Your task to perform on an android device: Go to Yahoo.com Image 0: 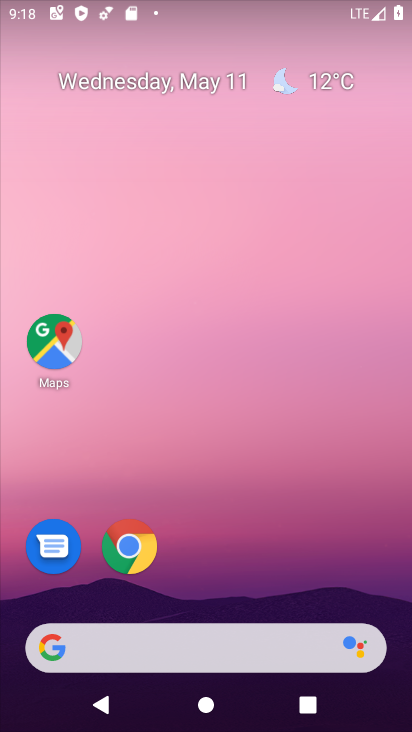
Step 0: click (127, 548)
Your task to perform on an android device: Go to Yahoo.com Image 1: 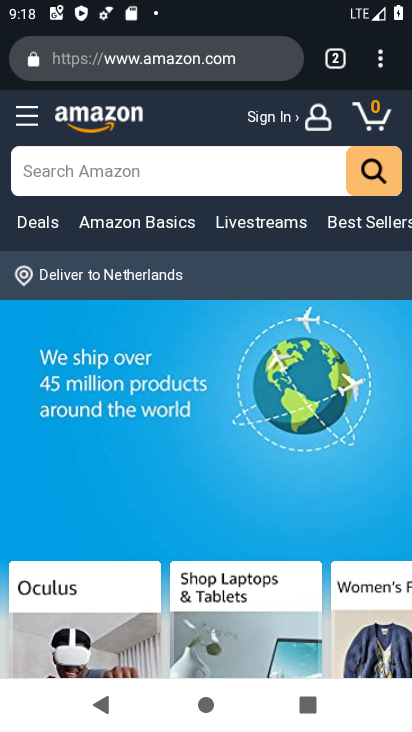
Step 1: click (242, 57)
Your task to perform on an android device: Go to Yahoo.com Image 2: 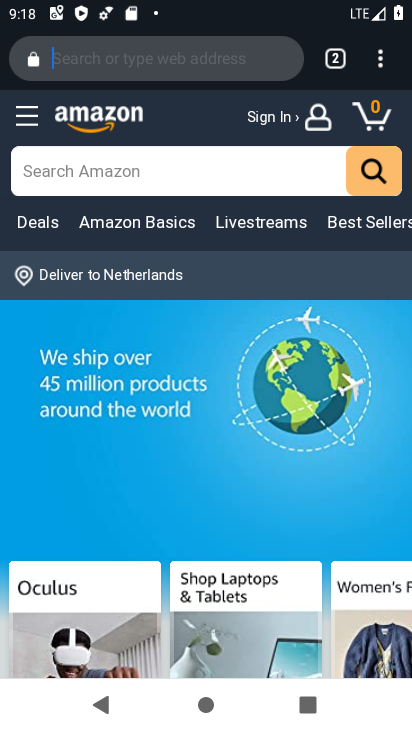
Step 2: click (242, 57)
Your task to perform on an android device: Go to Yahoo.com Image 3: 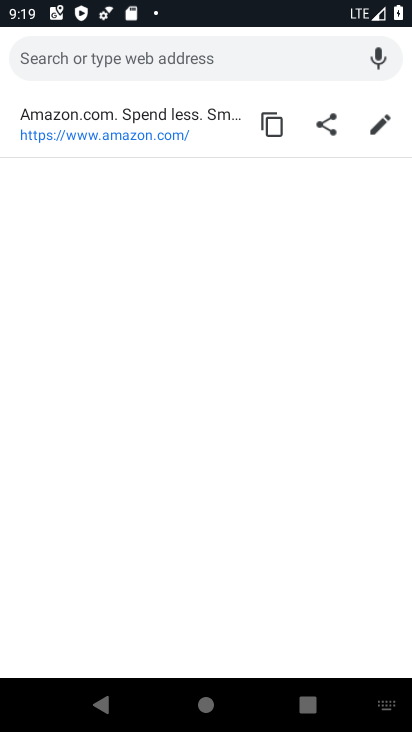
Step 3: type "yahoo.com"
Your task to perform on an android device: Go to Yahoo.com Image 4: 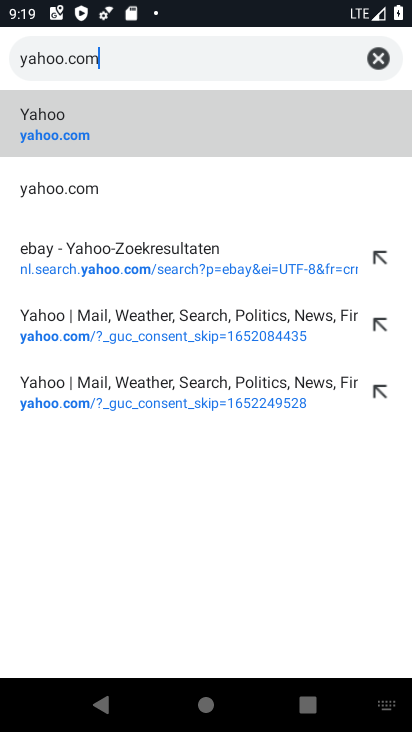
Step 4: click (43, 125)
Your task to perform on an android device: Go to Yahoo.com Image 5: 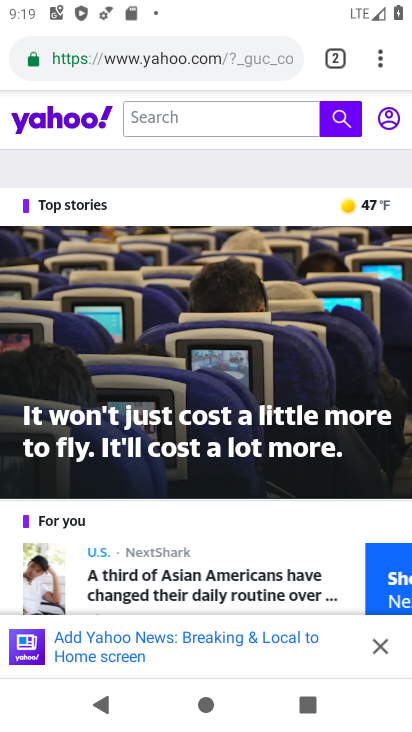
Step 5: task complete